Your task to perform on an android device: uninstall "DoorDash - Food Delivery" Image 0: 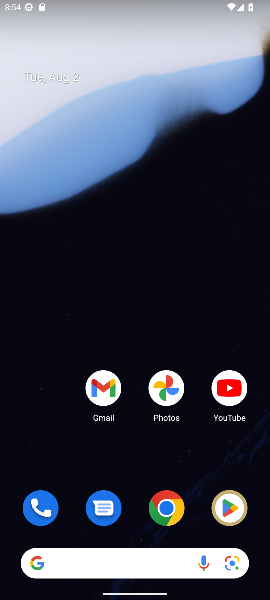
Step 0: drag from (110, 525) to (158, 41)
Your task to perform on an android device: uninstall "DoorDash - Food Delivery" Image 1: 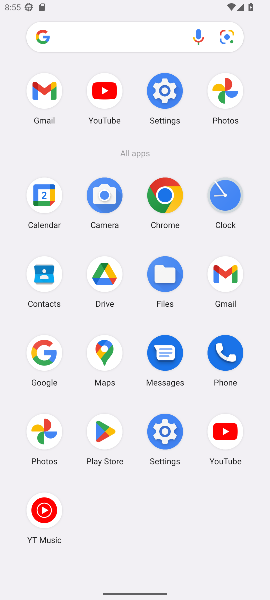
Step 1: click (99, 454)
Your task to perform on an android device: uninstall "DoorDash - Food Delivery" Image 2: 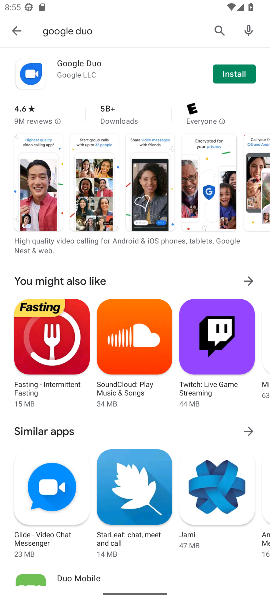
Step 2: click (9, 29)
Your task to perform on an android device: uninstall "DoorDash - Food Delivery" Image 3: 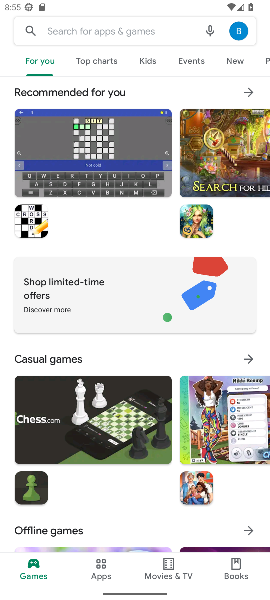
Step 3: click (88, 22)
Your task to perform on an android device: uninstall "DoorDash - Food Delivery" Image 4: 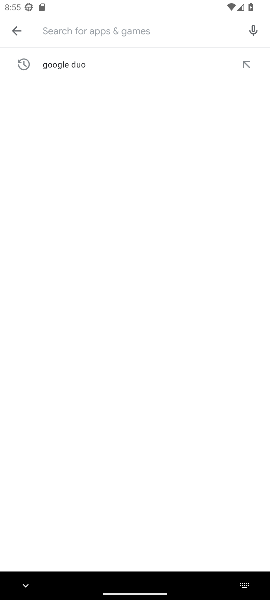
Step 4: type "DoorDash - Food Delivery"
Your task to perform on an android device: uninstall "DoorDash - Food Delivery" Image 5: 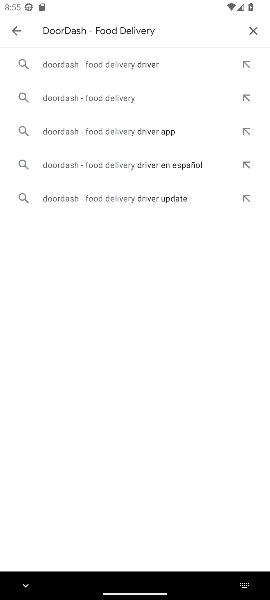
Step 5: click (137, 61)
Your task to perform on an android device: uninstall "DoorDash - Food Delivery" Image 6: 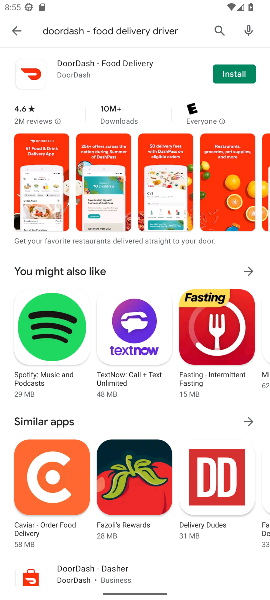
Step 6: task complete